Your task to perform on an android device: Is it going to rain today? Image 0: 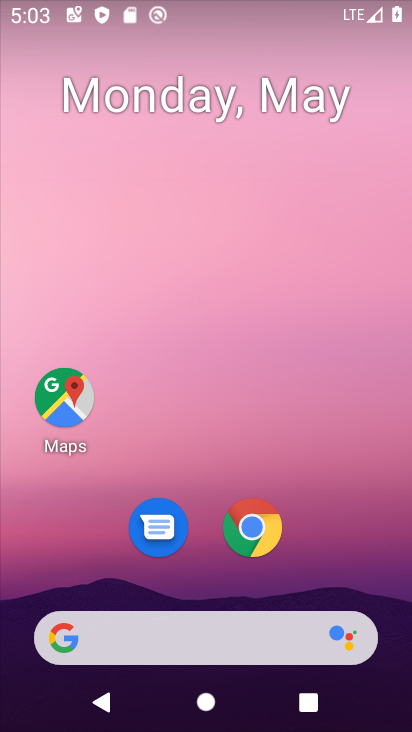
Step 0: drag from (3, 276) to (406, 258)
Your task to perform on an android device: Is it going to rain today? Image 1: 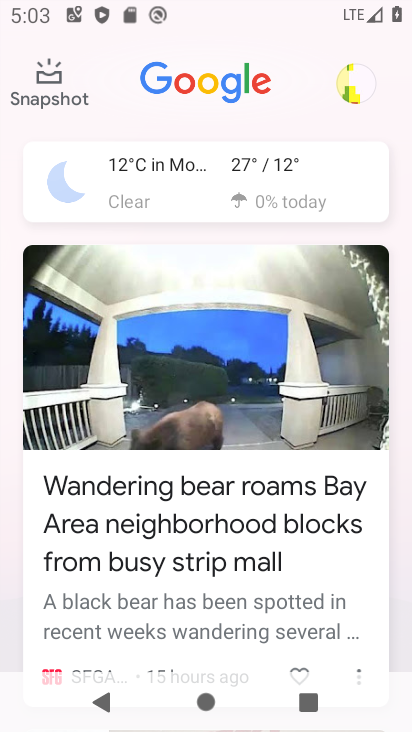
Step 1: click (256, 160)
Your task to perform on an android device: Is it going to rain today? Image 2: 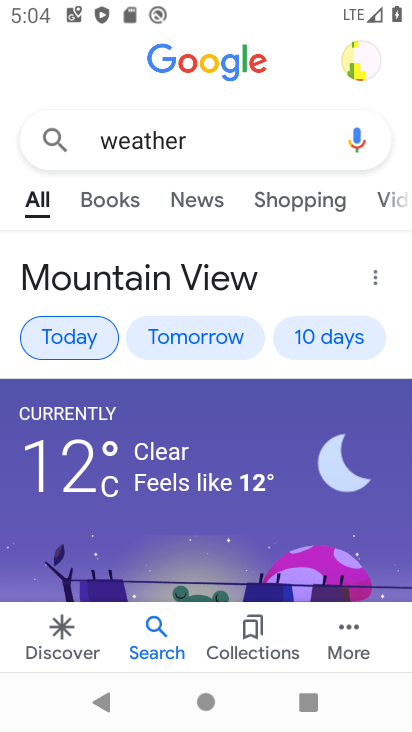
Step 2: task complete